Your task to perform on an android device: change your default location settings in chrome Image 0: 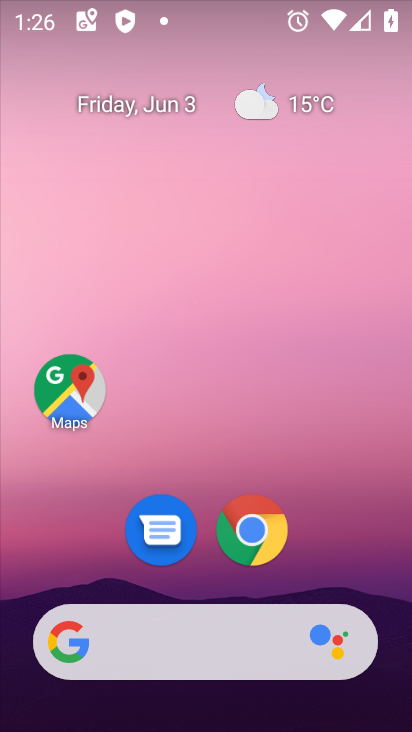
Step 0: click (256, 528)
Your task to perform on an android device: change your default location settings in chrome Image 1: 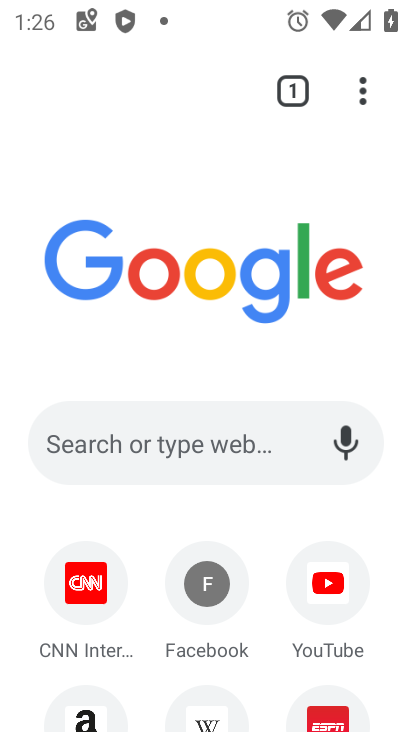
Step 1: click (360, 82)
Your task to perform on an android device: change your default location settings in chrome Image 2: 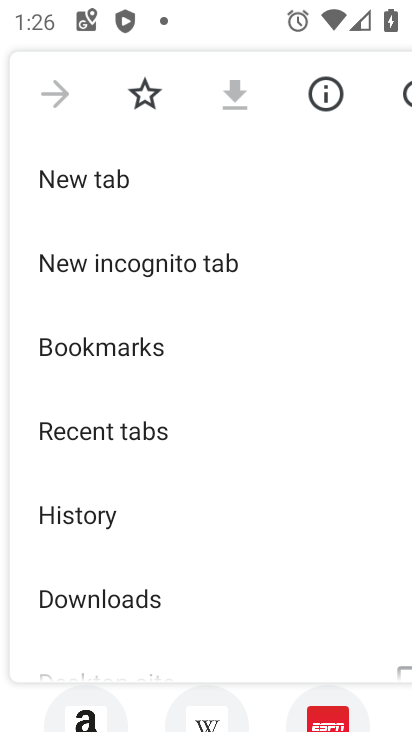
Step 2: drag from (326, 623) to (329, 207)
Your task to perform on an android device: change your default location settings in chrome Image 3: 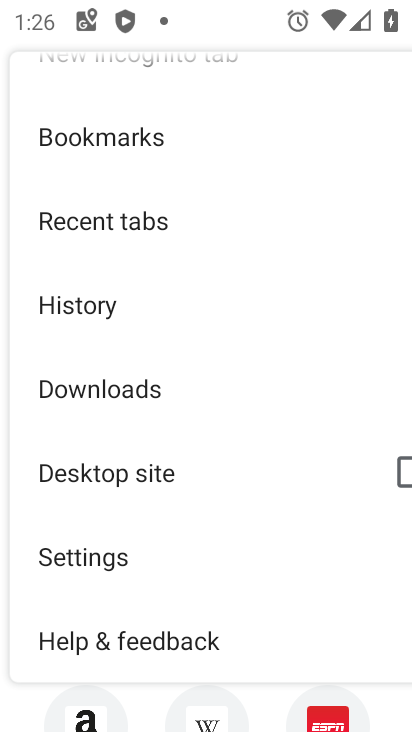
Step 3: click (119, 552)
Your task to perform on an android device: change your default location settings in chrome Image 4: 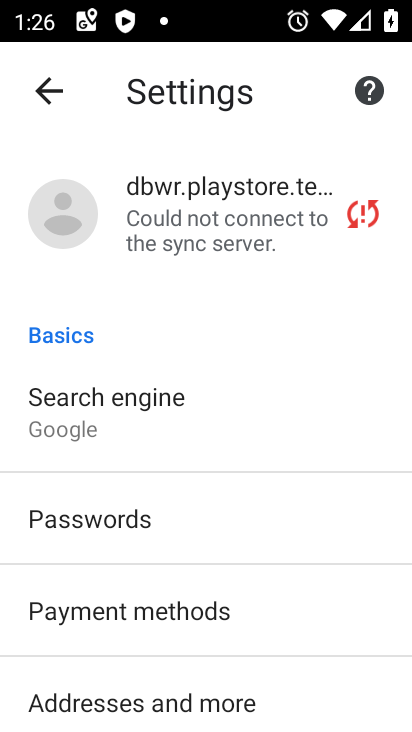
Step 4: drag from (325, 359) to (311, 140)
Your task to perform on an android device: change your default location settings in chrome Image 5: 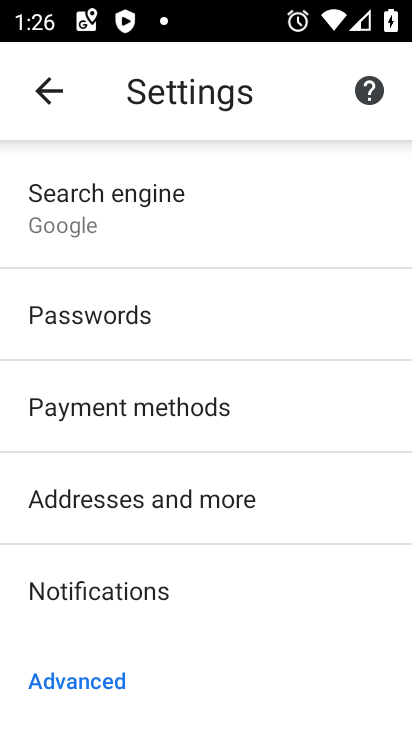
Step 5: drag from (265, 576) to (238, 312)
Your task to perform on an android device: change your default location settings in chrome Image 6: 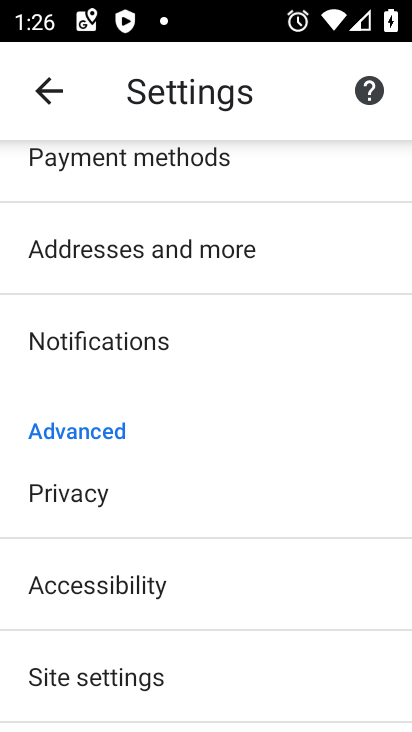
Step 6: click (153, 662)
Your task to perform on an android device: change your default location settings in chrome Image 7: 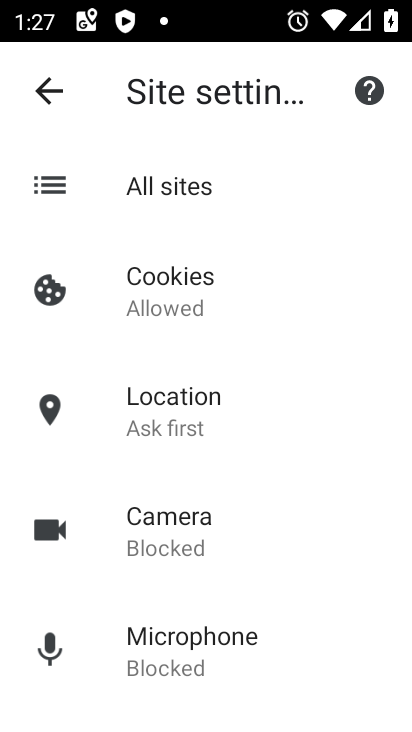
Step 7: click (201, 409)
Your task to perform on an android device: change your default location settings in chrome Image 8: 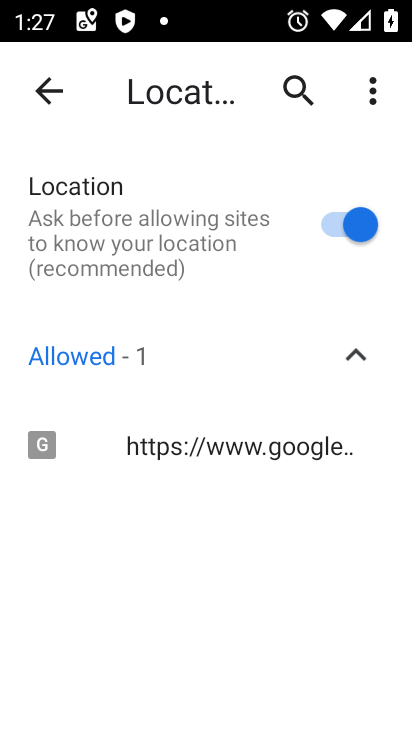
Step 8: click (352, 362)
Your task to perform on an android device: change your default location settings in chrome Image 9: 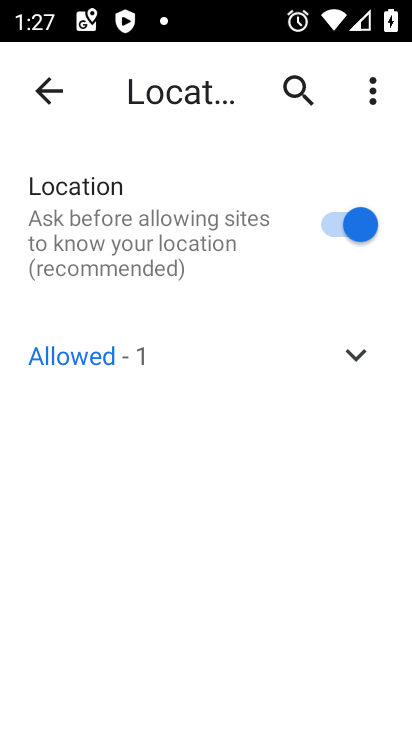
Step 9: click (338, 223)
Your task to perform on an android device: change your default location settings in chrome Image 10: 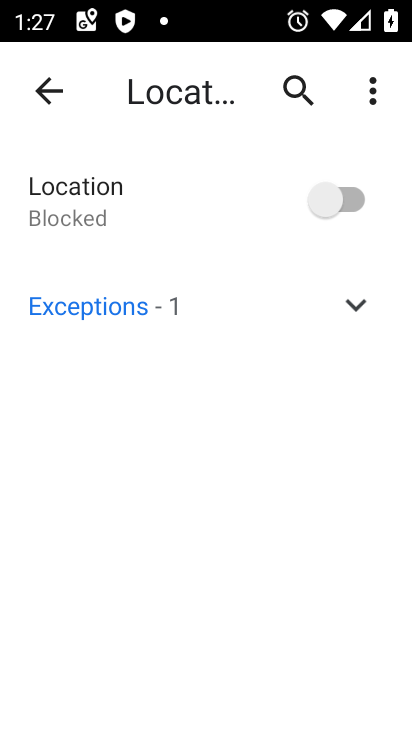
Step 10: task complete